Your task to perform on an android device: add a contact Image 0: 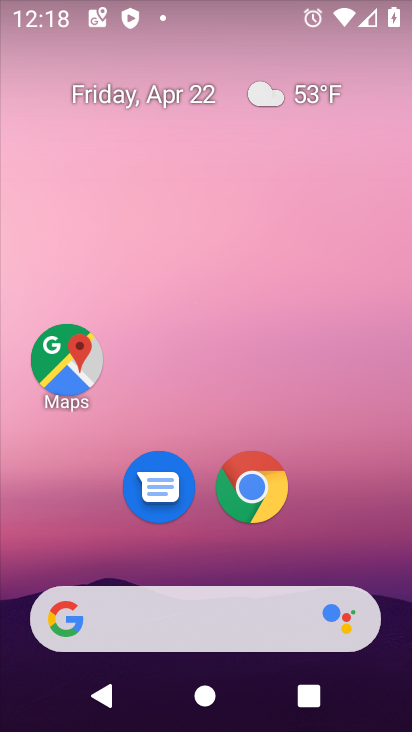
Step 0: drag from (358, 507) to (310, 103)
Your task to perform on an android device: add a contact Image 1: 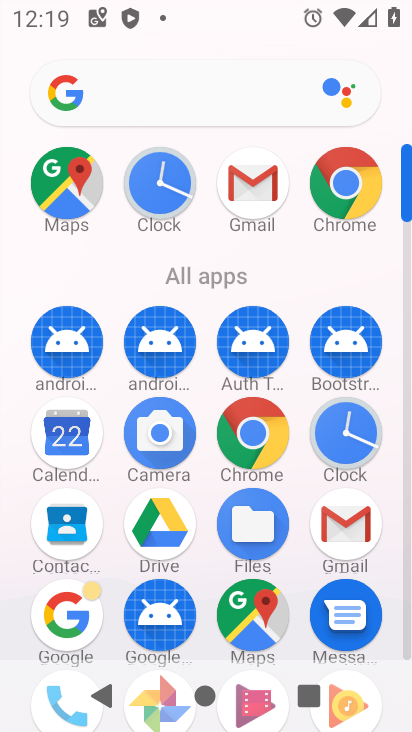
Step 1: click (76, 521)
Your task to perform on an android device: add a contact Image 2: 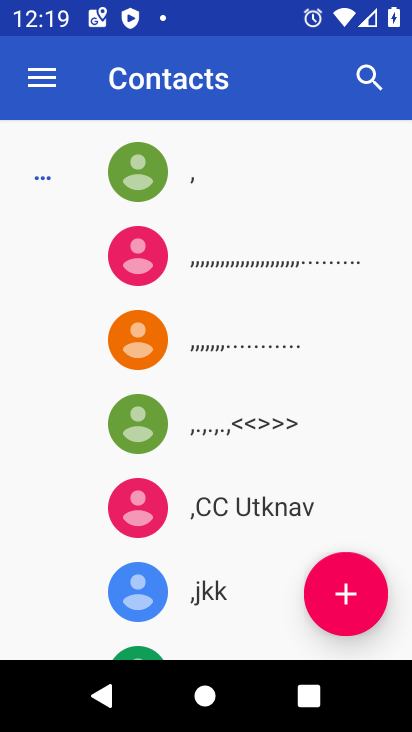
Step 2: click (342, 591)
Your task to perform on an android device: add a contact Image 3: 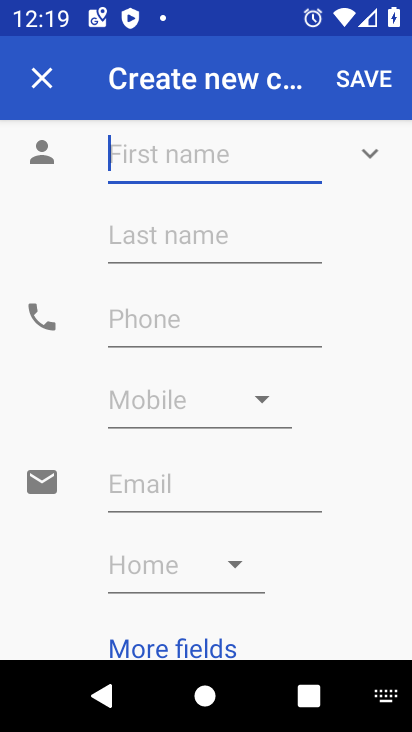
Step 3: type "Durgesh"
Your task to perform on an android device: add a contact Image 4: 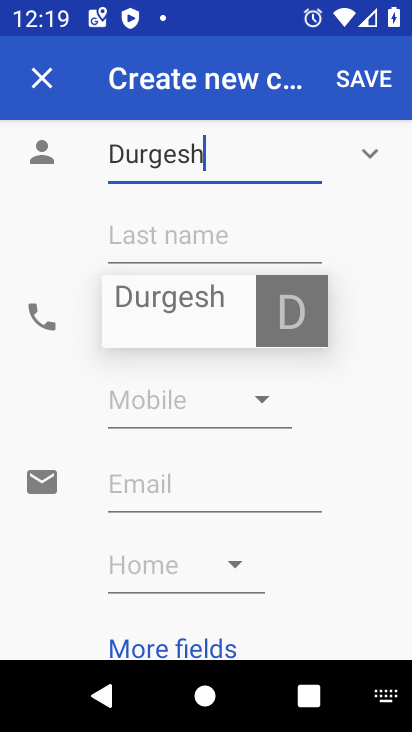
Step 4: type "anand"
Your task to perform on an android device: add a contact Image 5: 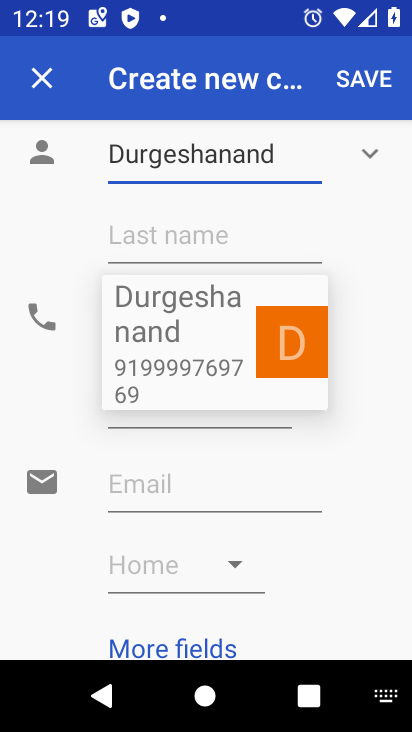
Step 5: type "ji"
Your task to perform on an android device: add a contact Image 6: 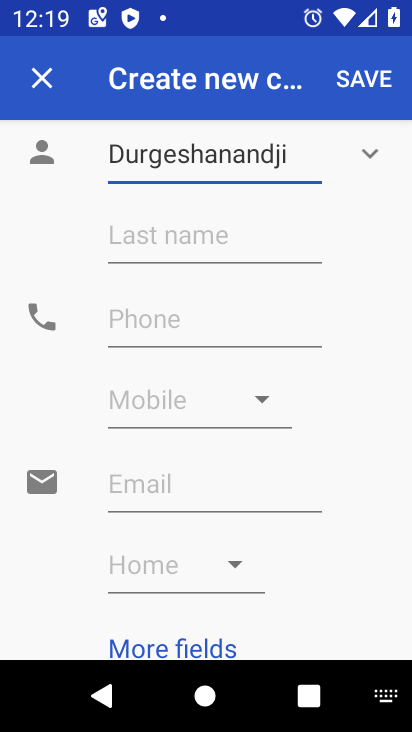
Step 6: click (215, 328)
Your task to perform on an android device: add a contact Image 7: 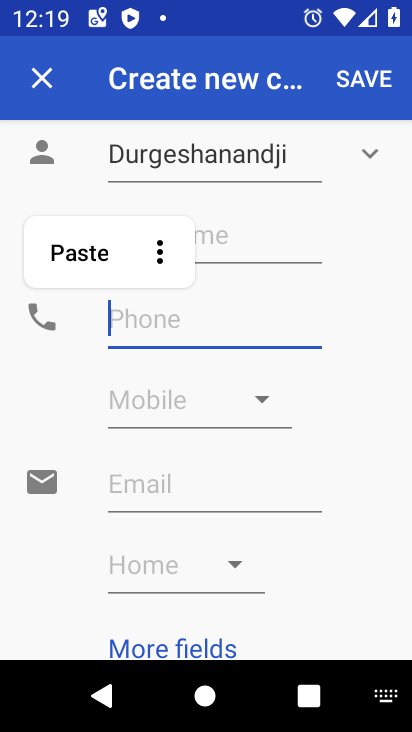
Step 7: type "919999999999"
Your task to perform on an android device: add a contact Image 8: 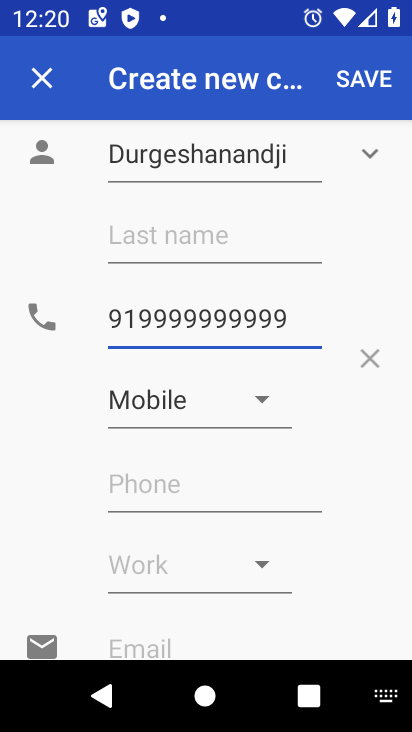
Step 8: click (372, 77)
Your task to perform on an android device: add a contact Image 9: 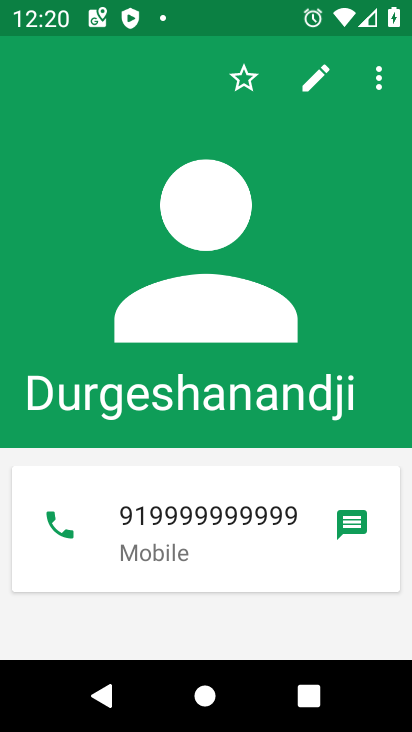
Step 9: task complete